Your task to perform on an android device: make emails show in primary in the gmail app Image 0: 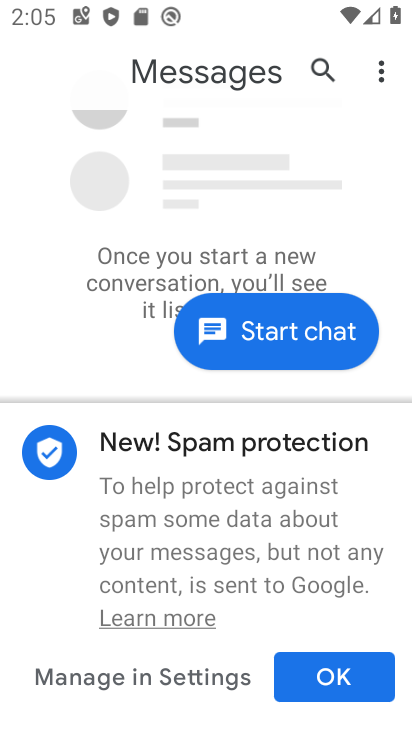
Step 0: press home button
Your task to perform on an android device: make emails show in primary in the gmail app Image 1: 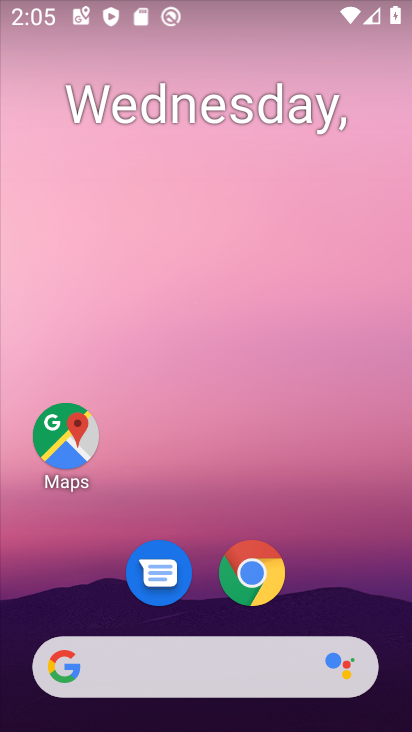
Step 1: drag from (202, 594) to (187, 96)
Your task to perform on an android device: make emails show in primary in the gmail app Image 2: 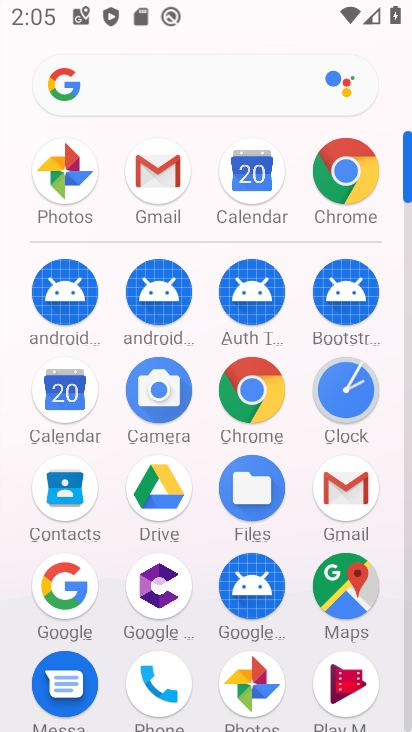
Step 2: click (343, 487)
Your task to perform on an android device: make emails show in primary in the gmail app Image 3: 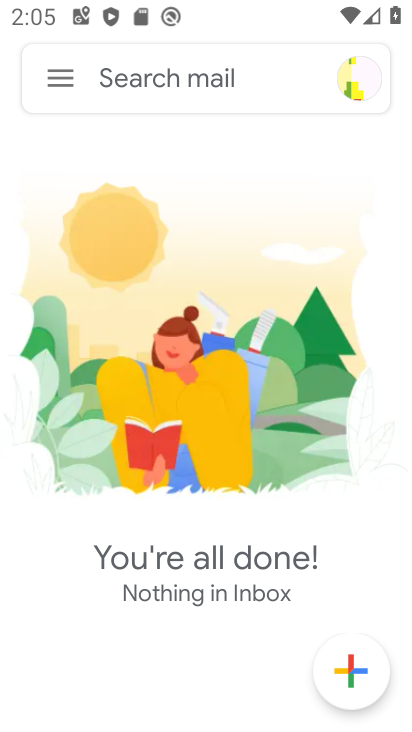
Step 3: click (62, 86)
Your task to perform on an android device: make emails show in primary in the gmail app Image 4: 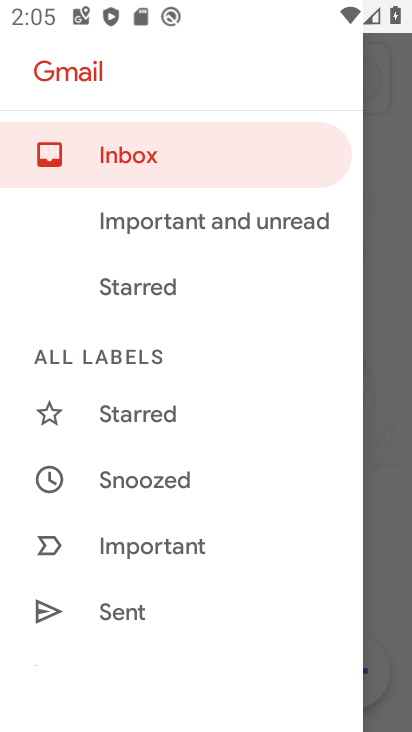
Step 4: drag from (212, 542) to (201, 243)
Your task to perform on an android device: make emails show in primary in the gmail app Image 5: 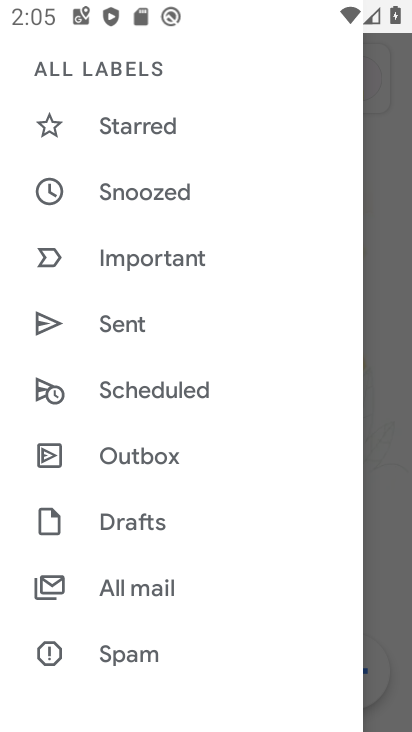
Step 5: drag from (183, 642) to (182, 217)
Your task to perform on an android device: make emails show in primary in the gmail app Image 6: 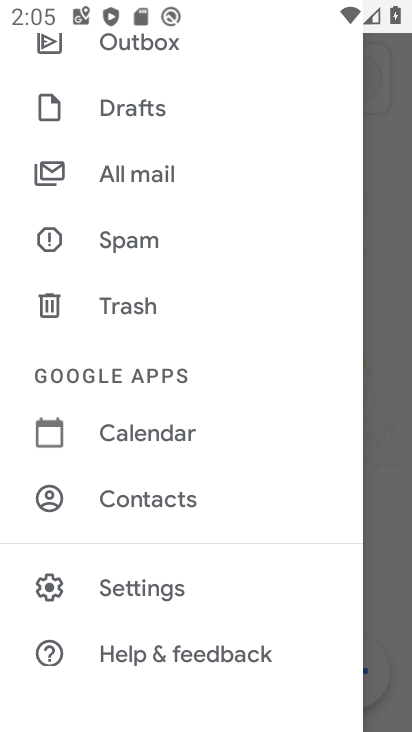
Step 6: click (128, 589)
Your task to perform on an android device: make emails show in primary in the gmail app Image 7: 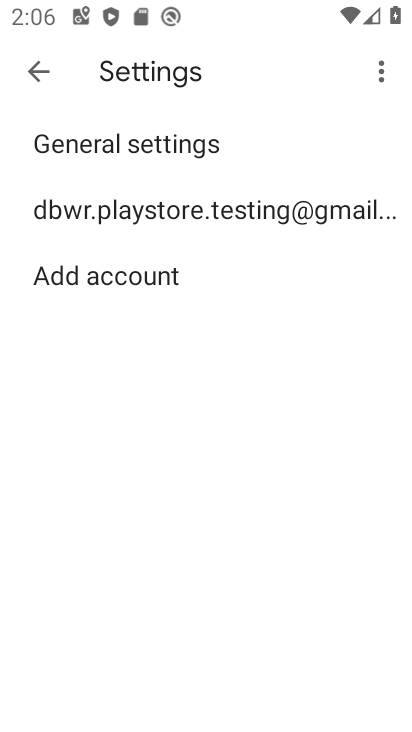
Step 7: click (139, 216)
Your task to perform on an android device: make emails show in primary in the gmail app Image 8: 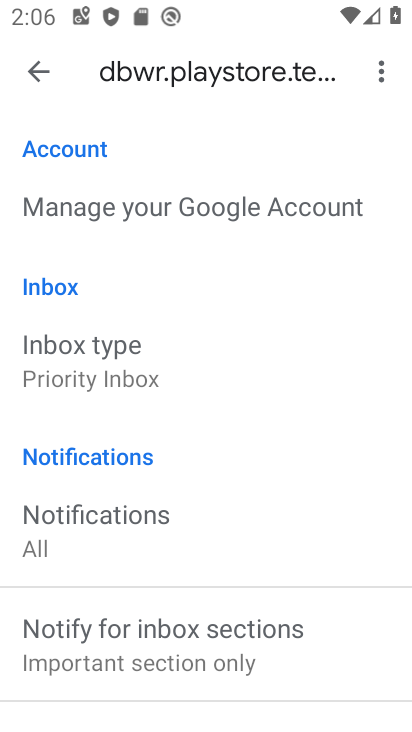
Step 8: drag from (189, 561) to (164, 508)
Your task to perform on an android device: make emails show in primary in the gmail app Image 9: 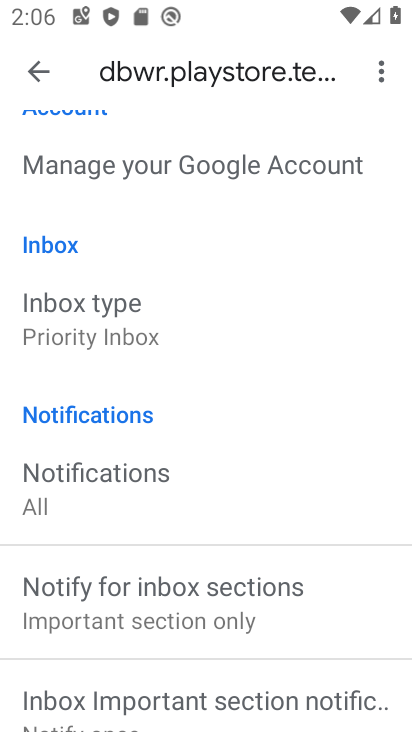
Step 9: drag from (139, 399) to (154, 545)
Your task to perform on an android device: make emails show in primary in the gmail app Image 10: 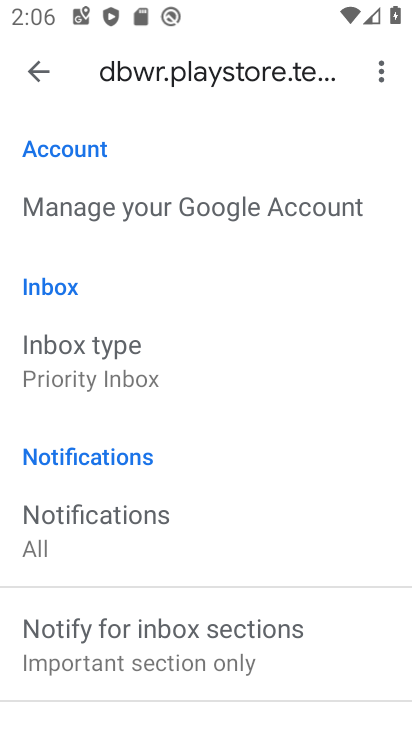
Step 10: click (133, 355)
Your task to perform on an android device: make emails show in primary in the gmail app Image 11: 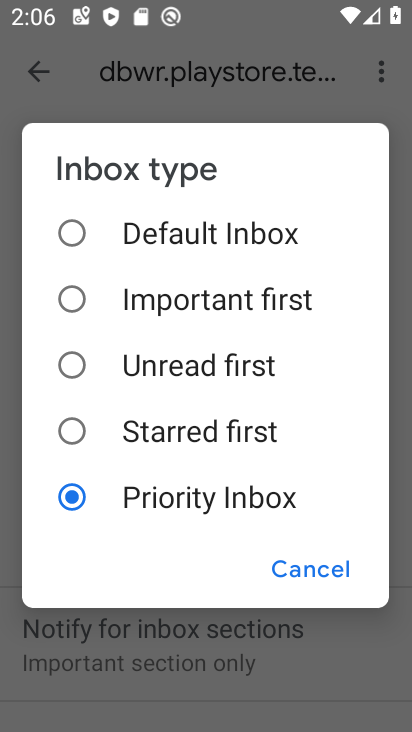
Step 11: click (68, 223)
Your task to perform on an android device: make emails show in primary in the gmail app Image 12: 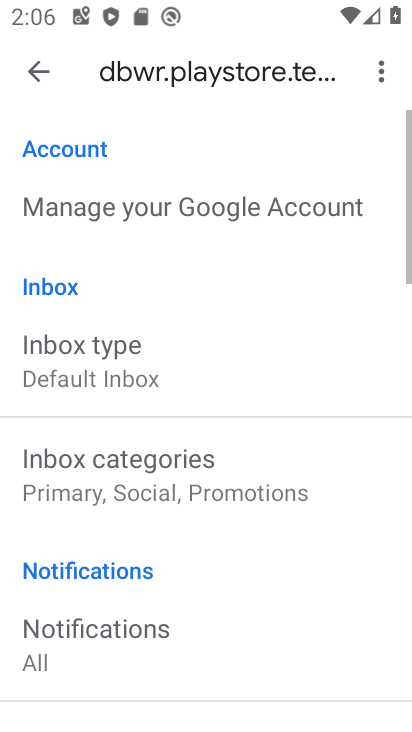
Step 12: click (101, 485)
Your task to perform on an android device: make emails show in primary in the gmail app Image 13: 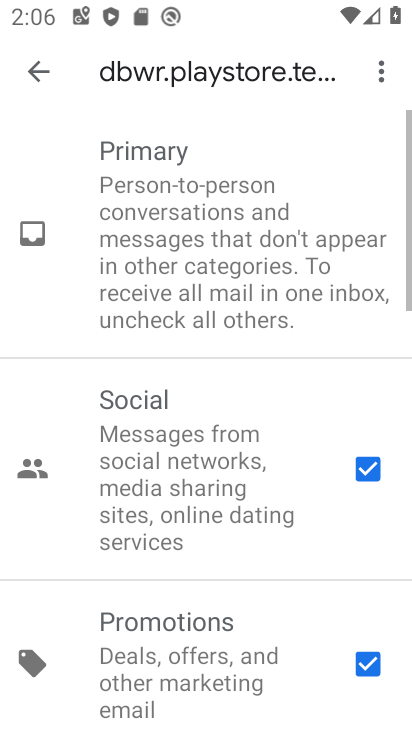
Step 13: click (357, 471)
Your task to perform on an android device: make emails show in primary in the gmail app Image 14: 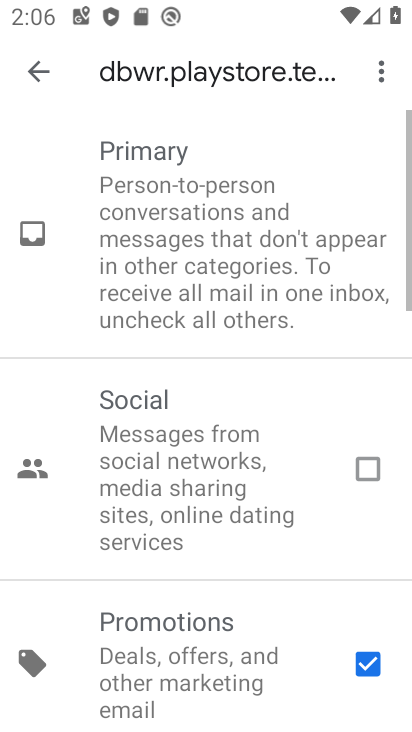
Step 14: click (360, 663)
Your task to perform on an android device: make emails show in primary in the gmail app Image 15: 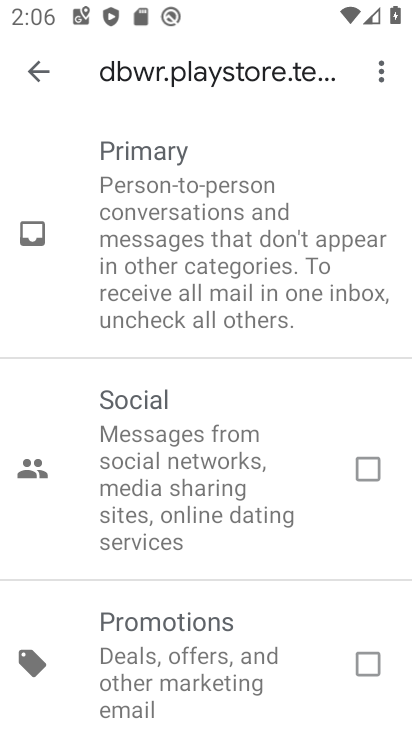
Step 15: task complete